Your task to perform on an android device: Clear all items from cart on ebay.com. Add "rayovac triple a" to the cart on ebay.com, then select checkout. Image 0: 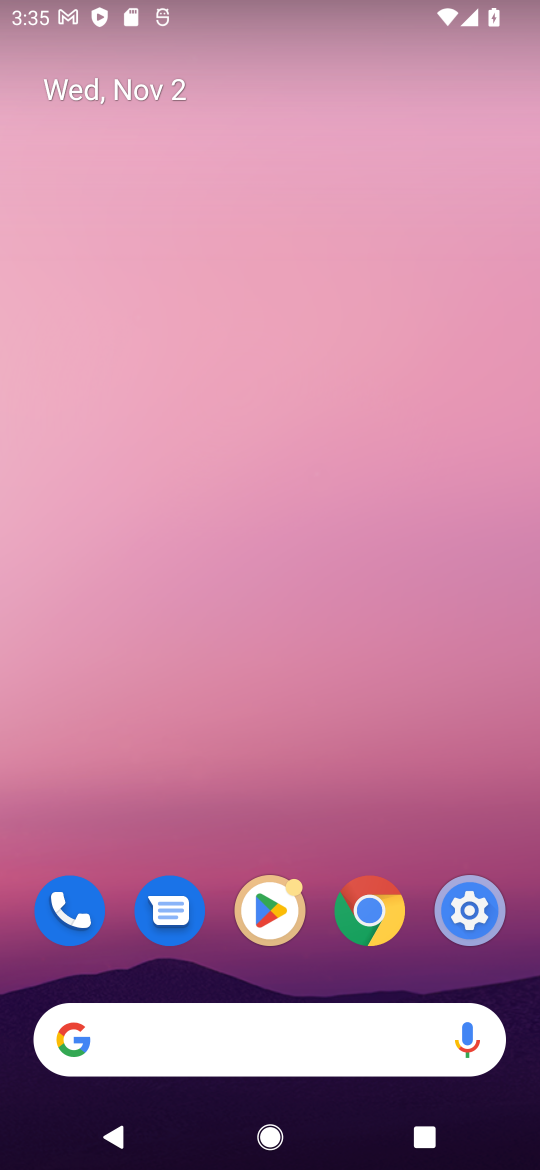
Step 0: click (276, 1023)
Your task to perform on an android device: Clear all items from cart on ebay.com. Add "rayovac triple a" to the cart on ebay.com, then select checkout. Image 1: 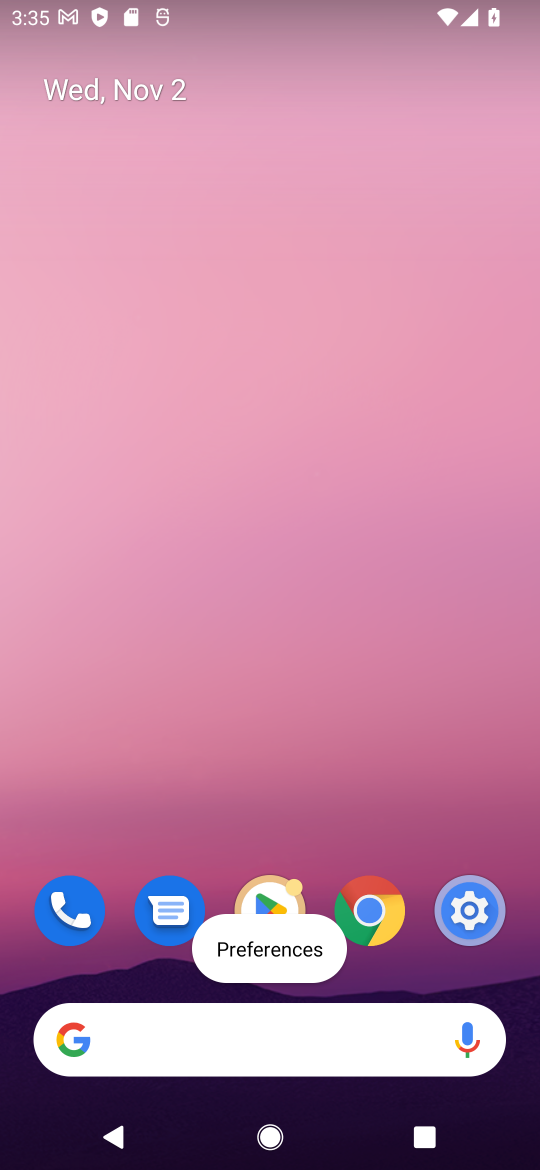
Step 1: click (276, 1023)
Your task to perform on an android device: Clear all items from cart on ebay.com. Add "rayovac triple a" to the cart on ebay.com, then select checkout. Image 2: 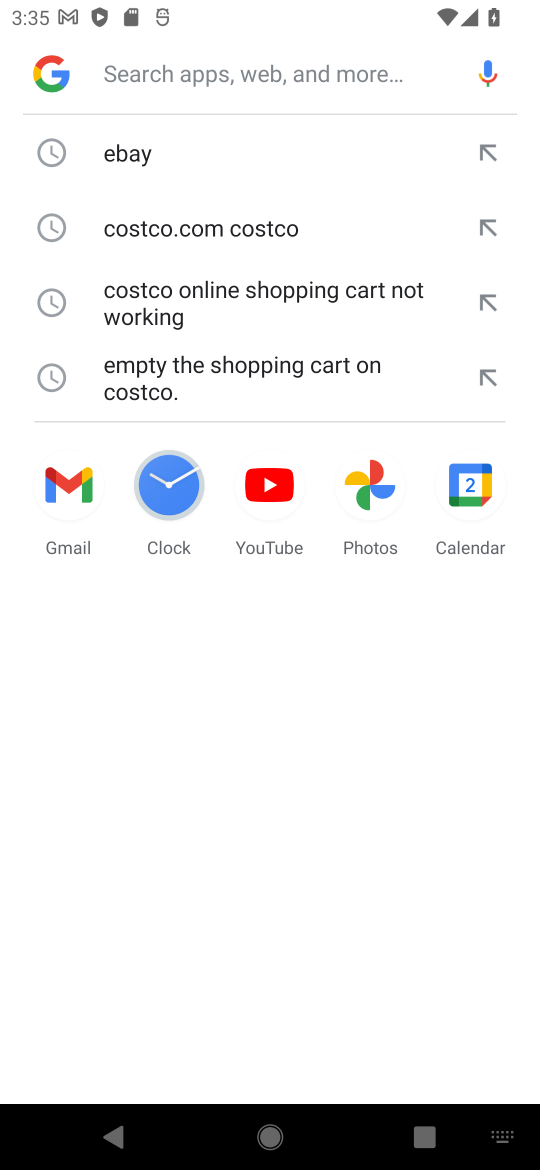
Step 2: click (141, 107)
Your task to perform on an android device: Clear all items from cart on ebay.com. Add "rayovac triple a" to the cart on ebay.com, then select checkout. Image 3: 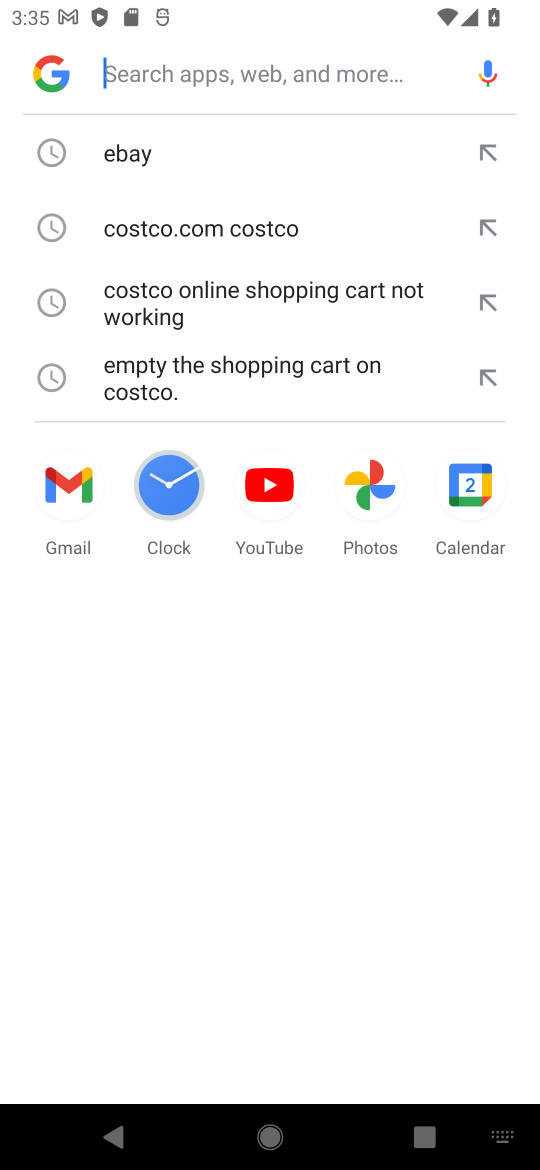
Step 3: click (145, 137)
Your task to perform on an android device: Clear all items from cart on ebay.com. Add "rayovac triple a" to the cart on ebay.com, then select checkout. Image 4: 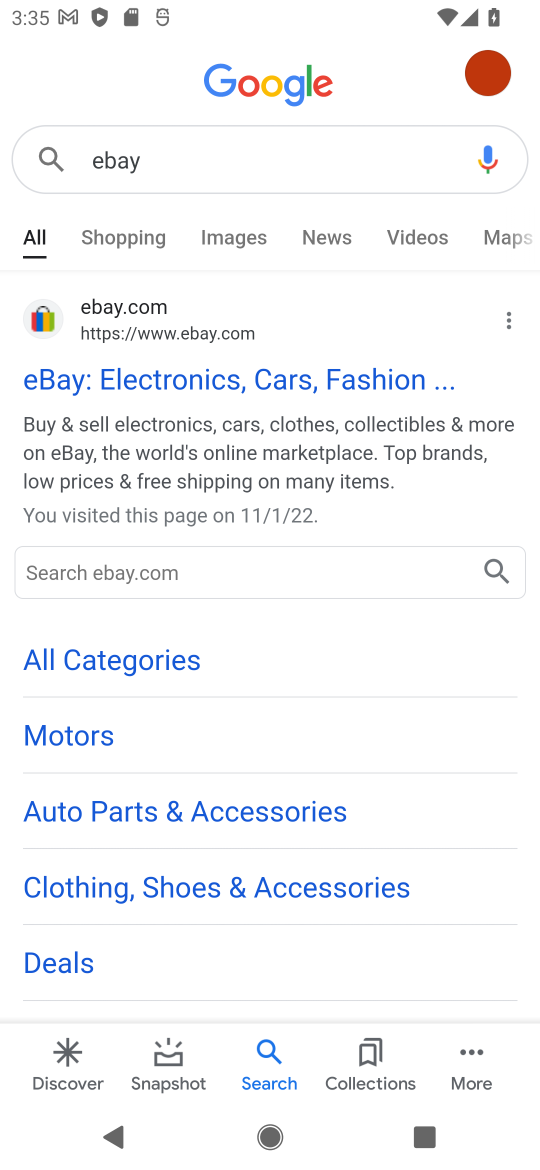
Step 4: click (125, 320)
Your task to perform on an android device: Clear all items from cart on ebay.com. Add "rayovac triple a" to the cart on ebay.com, then select checkout. Image 5: 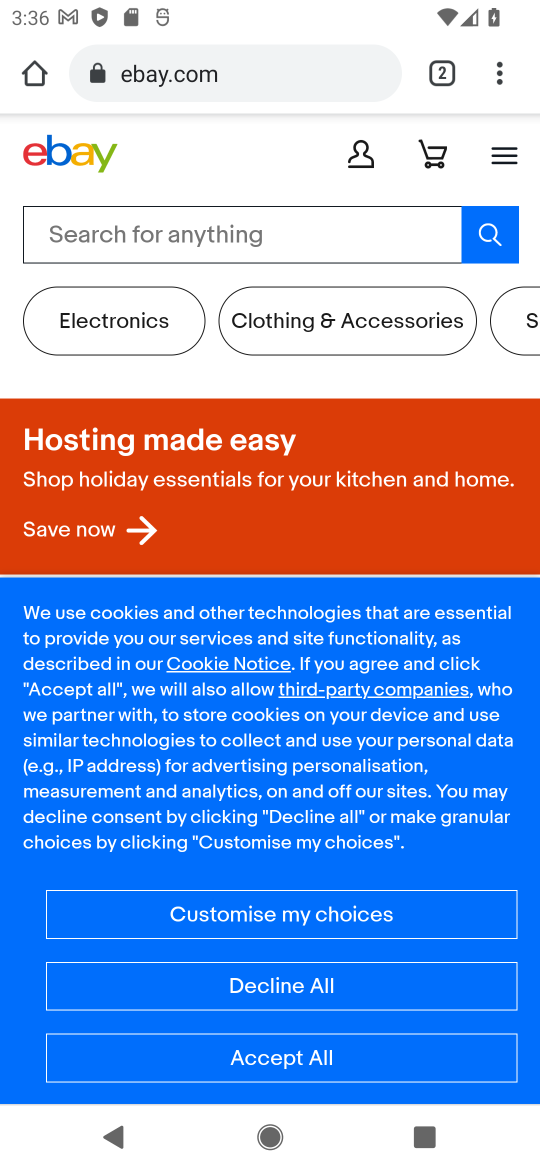
Step 5: click (300, 1054)
Your task to perform on an android device: Clear all items from cart on ebay.com. Add "rayovac triple a" to the cart on ebay.com, then select checkout. Image 6: 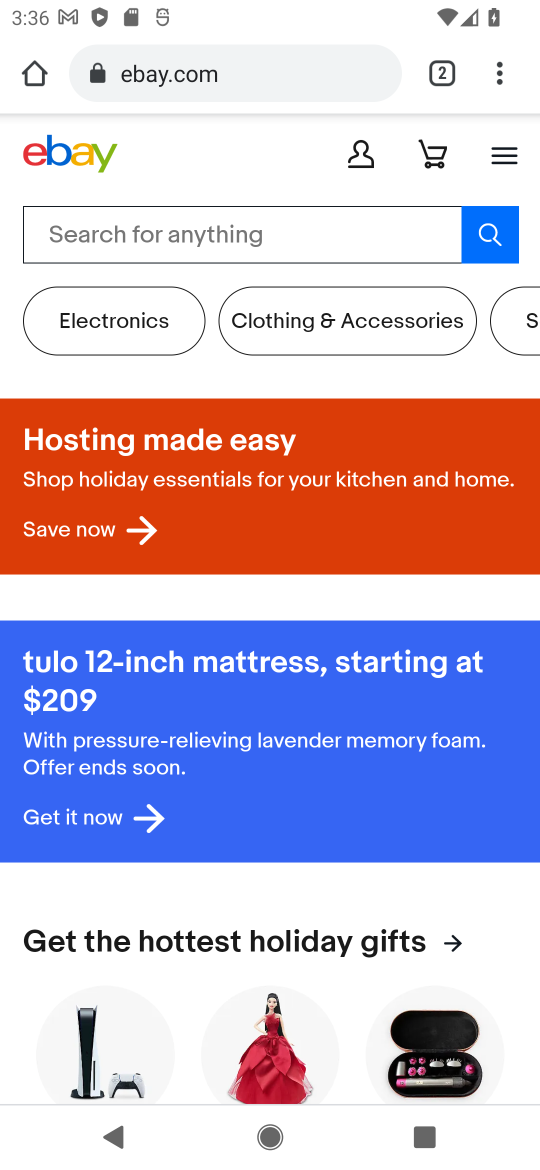
Step 6: click (117, 252)
Your task to perform on an android device: Clear all items from cart on ebay.com. Add "rayovac triple a" to the cart on ebay.com, then select checkout. Image 7: 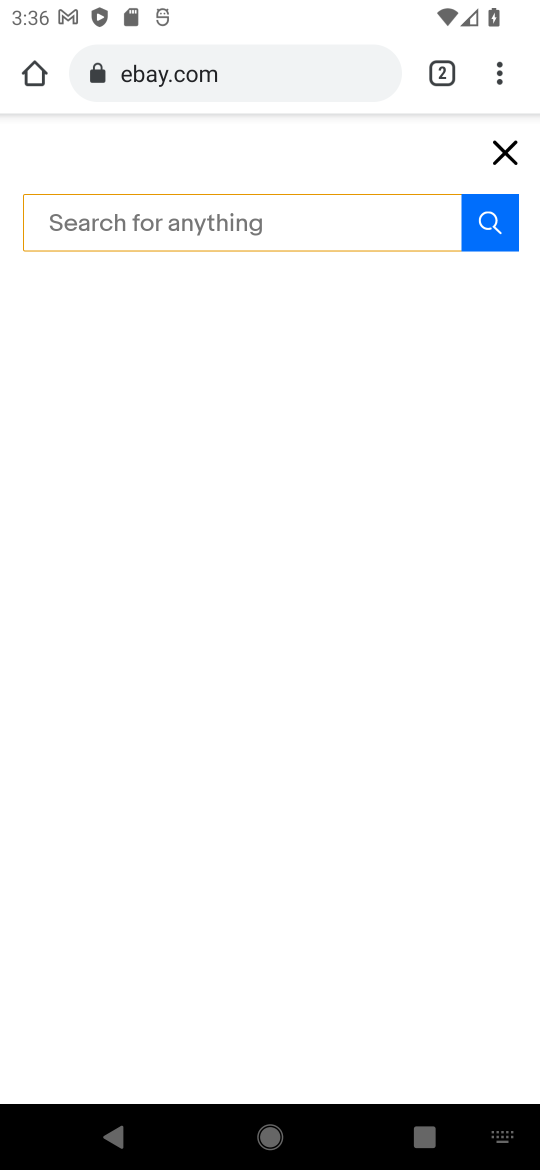
Step 7: type "rayovac triple a"
Your task to perform on an android device: Clear all items from cart on ebay.com. Add "rayovac triple a" to the cart on ebay.com, then select checkout. Image 8: 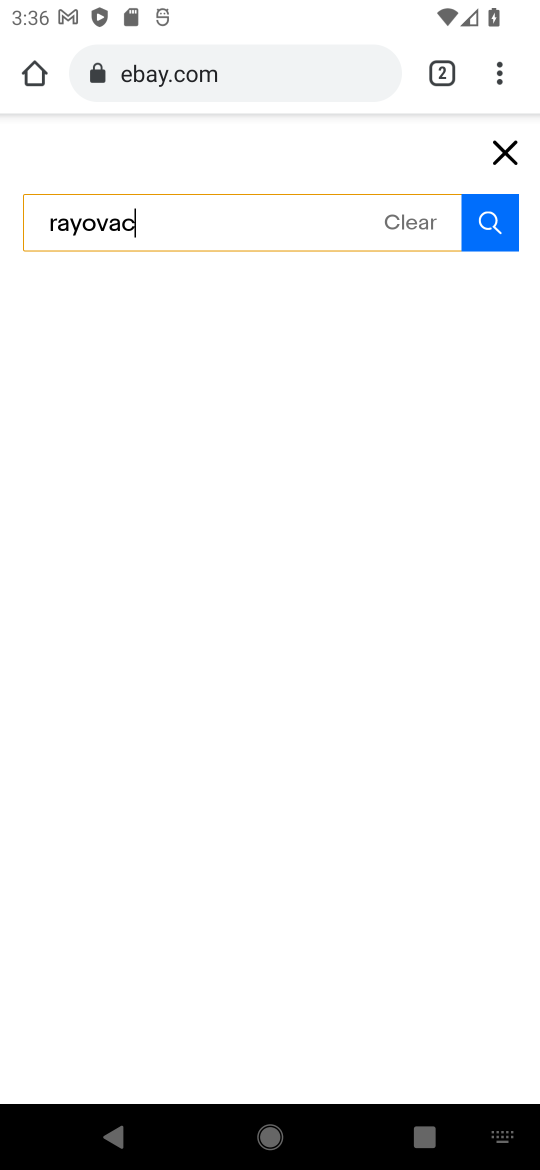
Step 8: type ""
Your task to perform on an android device: Clear all items from cart on ebay.com. Add "rayovac triple a" to the cart on ebay.com, then select checkout. Image 9: 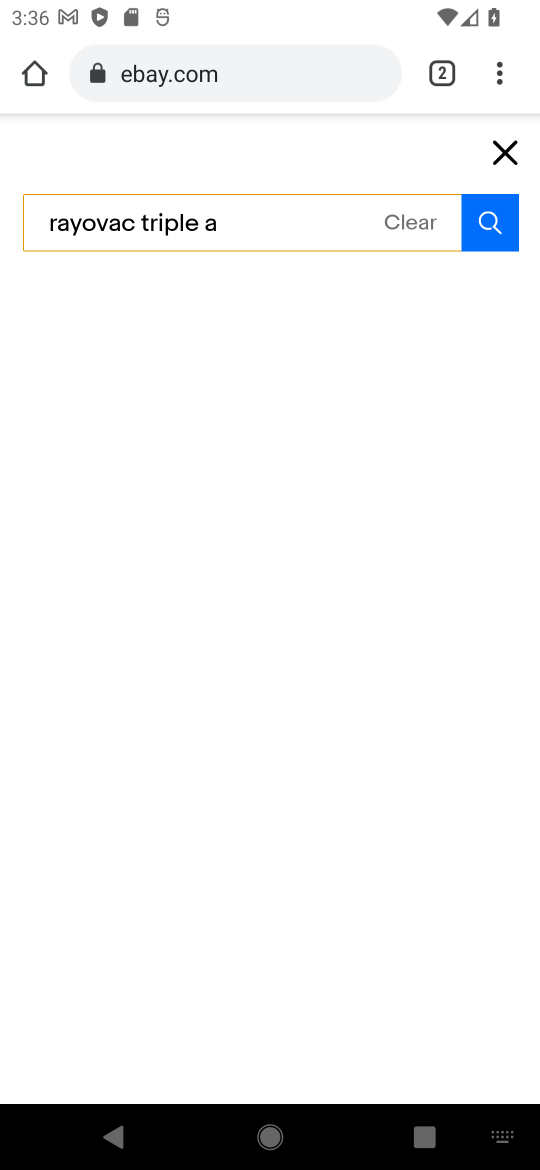
Step 9: press enter
Your task to perform on an android device: Clear all items from cart on ebay.com. Add "rayovac triple a" to the cart on ebay.com, then select checkout. Image 10: 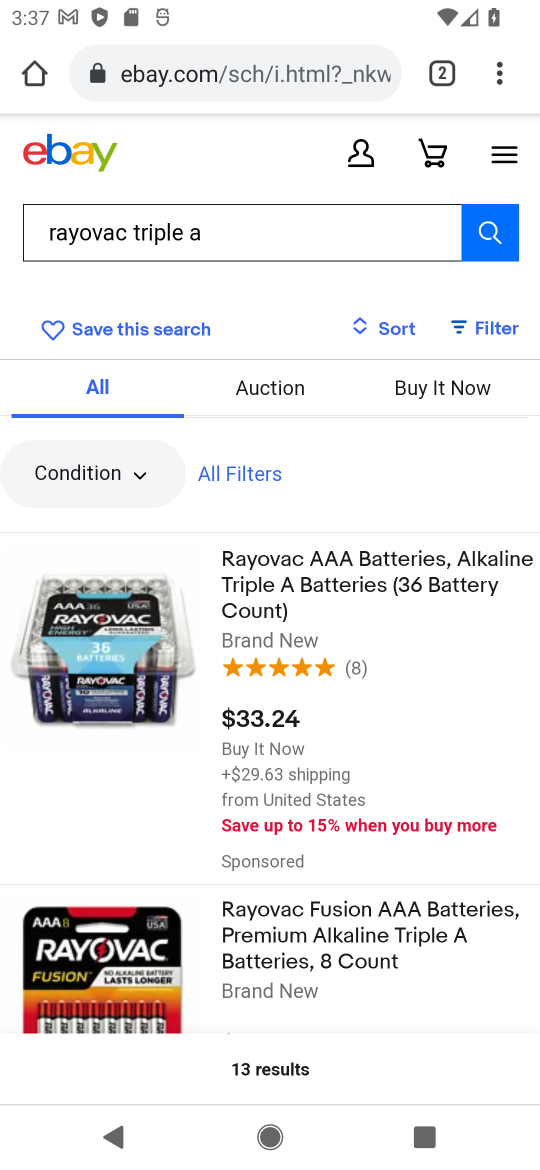
Step 10: click (412, 578)
Your task to perform on an android device: Clear all items from cart on ebay.com. Add "rayovac triple a" to the cart on ebay.com, then select checkout. Image 11: 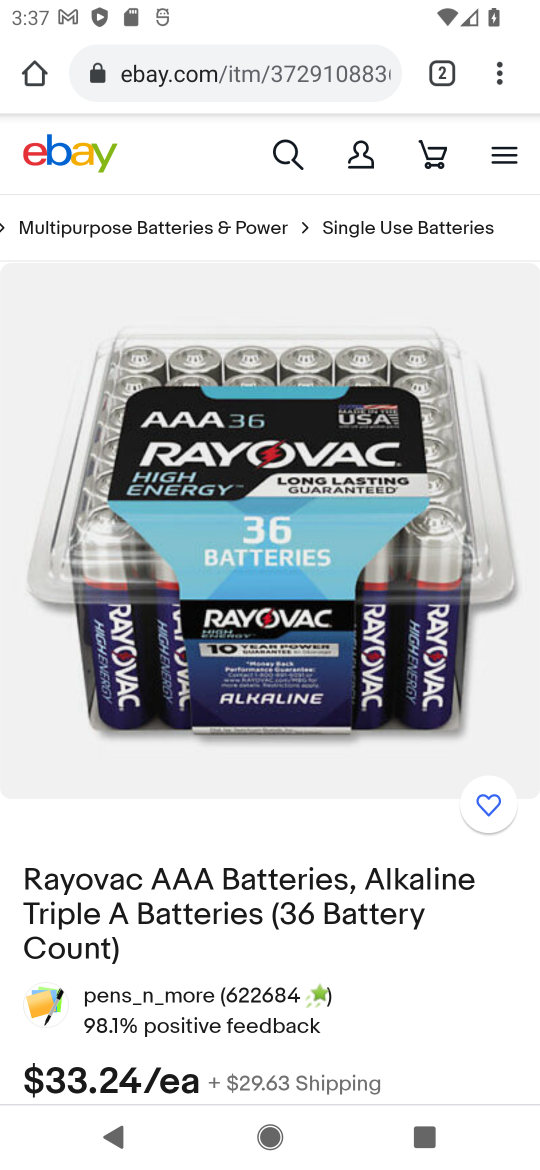
Step 11: drag from (226, 993) to (185, 575)
Your task to perform on an android device: Clear all items from cart on ebay.com. Add "rayovac triple a" to the cart on ebay.com, then select checkout. Image 12: 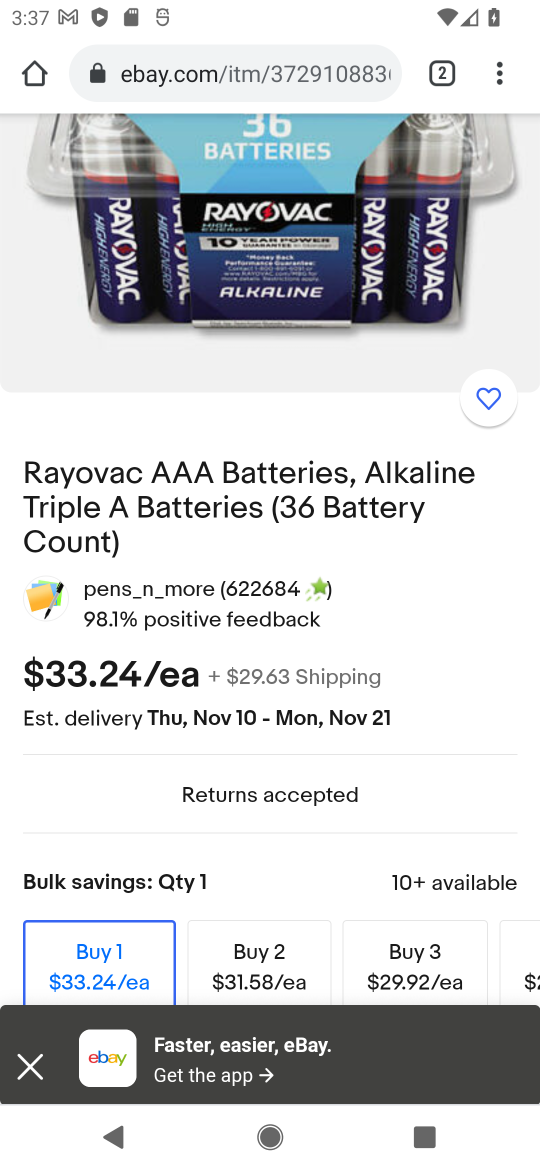
Step 12: drag from (265, 864) to (237, 535)
Your task to perform on an android device: Clear all items from cart on ebay.com. Add "rayovac triple a" to the cart on ebay.com, then select checkout. Image 13: 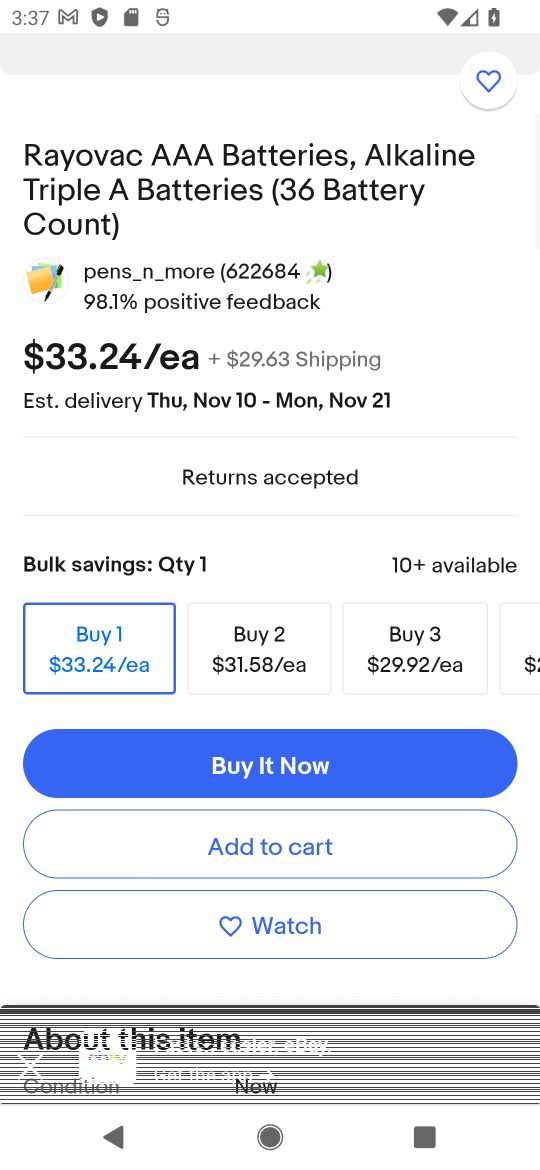
Step 13: click (282, 857)
Your task to perform on an android device: Clear all items from cart on ebay.com. Add "rayovac triple a" to the cart on ebay.com, then select checkout. Image 14: 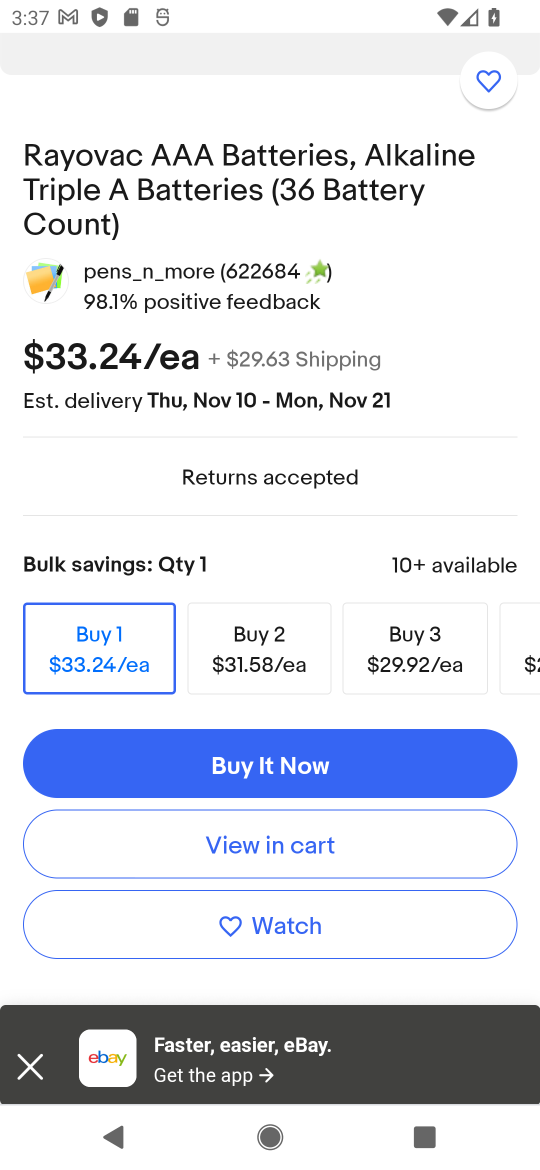
Step 14: drag from (433, 300) to (454, 782)
Your task to perform on an android device: Clear all items from cart on ebay.com. Add "rayovac triple a" to the cart on ebay.com, then select checkout. Image 15: 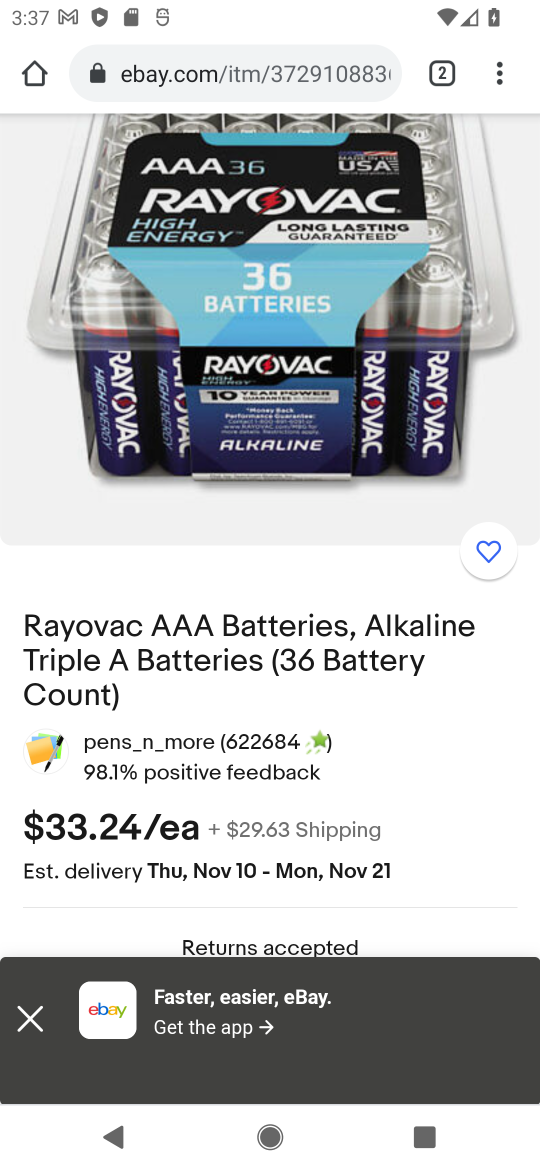
Step 15: drag from (378, 743) to (354, 403)
Your task to perform on an android device: Clear all items from cart on ebay.com. Add "rayovac triple a" to the cart on ebay.com, then select checkout. Image 16: 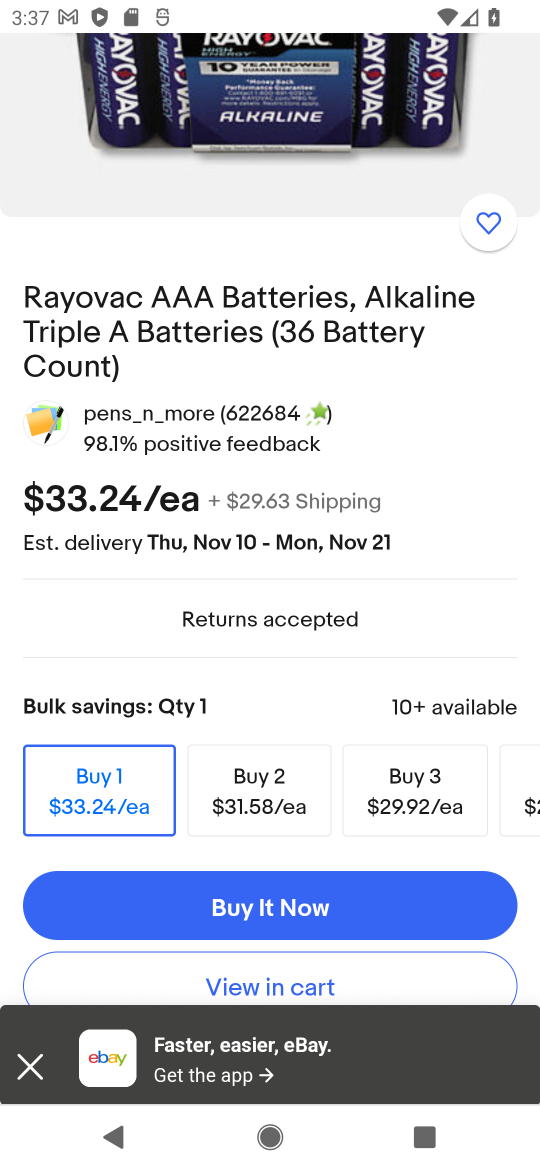
Step 16: click (290, 992)
Your task to perform on an android device: Clear all items from cart on ebay.com. Add "rayovac triple a" to the cart on ebay.com, then select checkout. Image 17: 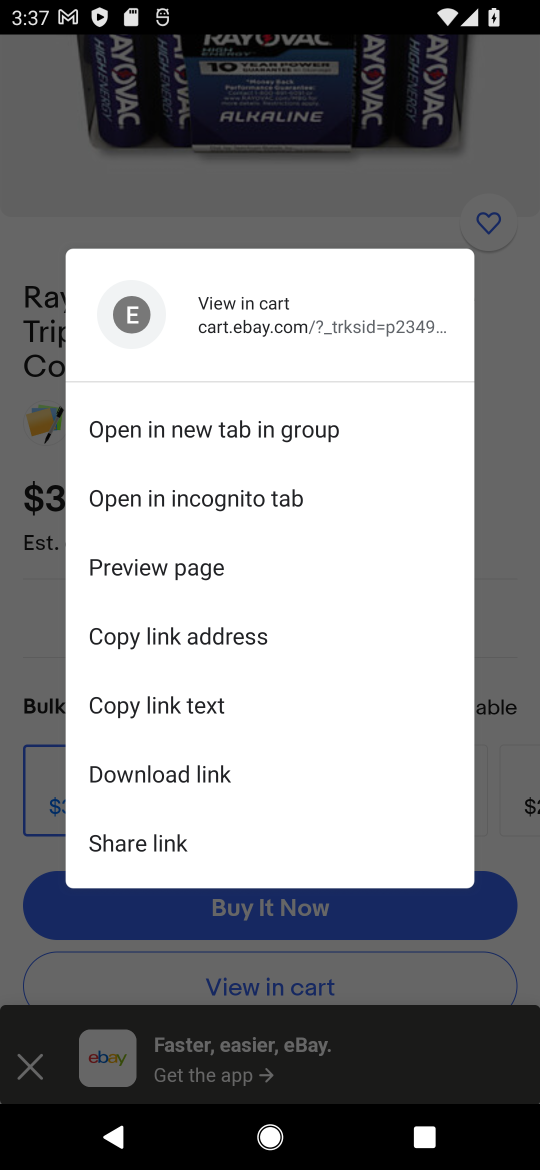
Step 17: click (285, 972)
Your task to perform on an android device: Clear all items from cart on ebay.com. Add "rayovac triple a" to the cart on ebay.com, then select checkout. Image 18: 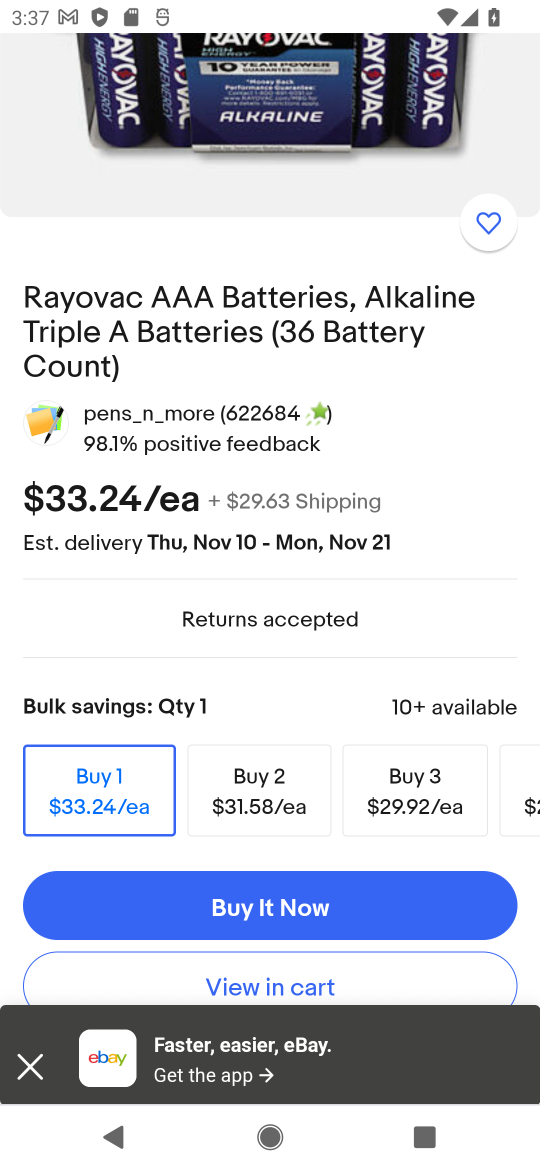
Step 18: drag from (285, 983) to (237, 684)
Your task to perform on an android device: Clear all items from cart on ebay.com. Add "rayovac triple a" to the cart on ebay.com, then select checkout. Image 19: 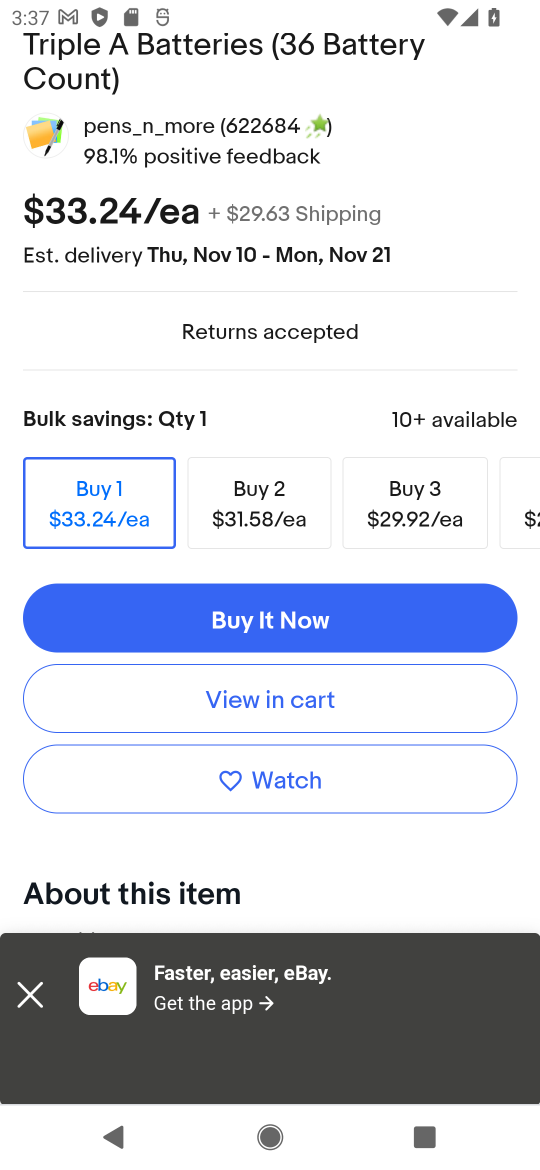
Step 19: click (270, 706)
Your task to perform on an android device: Clear all items from cart on ebay.com. Add "rayovac triple a" to the cart on ebay.com, then select checkout. Image 20: 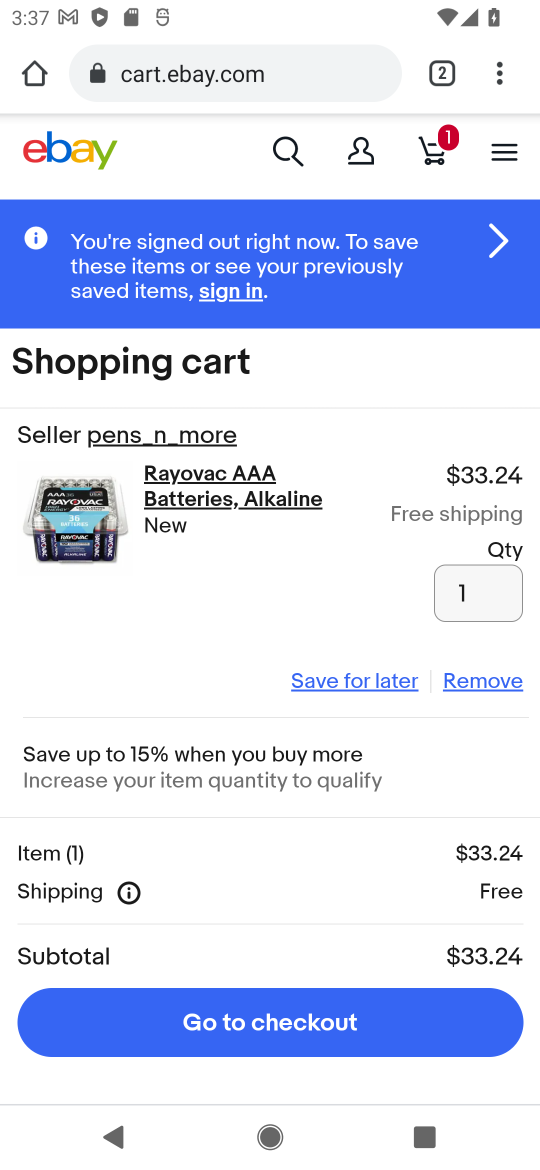
Step 20: click (305, 1013)
Your task to perform on an android device: Clear all items from cart on ebay.com. Add "rayovac triple a" to the cart on ebay.com, then select checkout. Image 21: 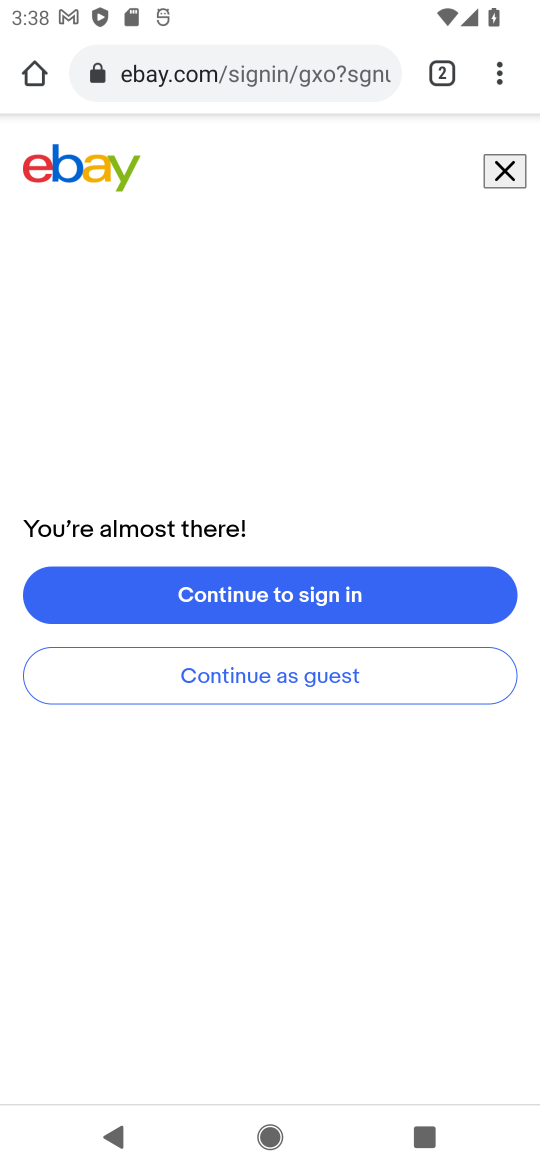
Step 21: task complete